Your task to perform on an android device: turn off javascript in the chrome app Image 0: 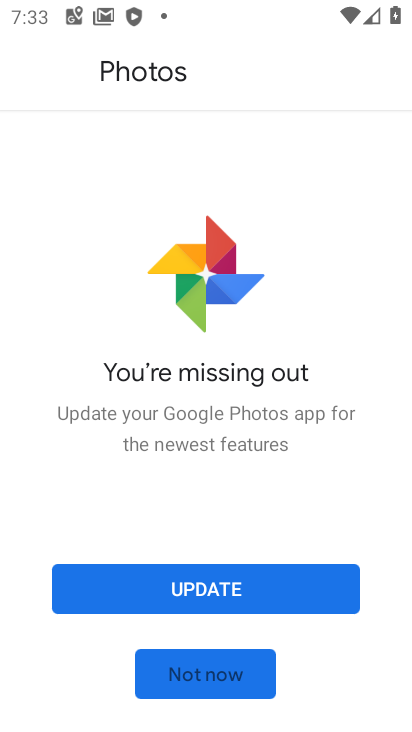
Step 0: press home button
Your task to perform on an android device: turn off javascript in the chrome app Image 1: 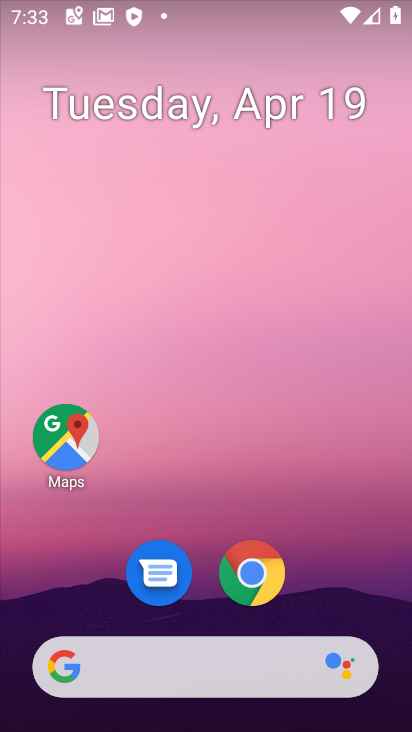
Step 1: click (252, 564)
Your task to perform on an android device: turn off javascript in the chrome app Image 2: 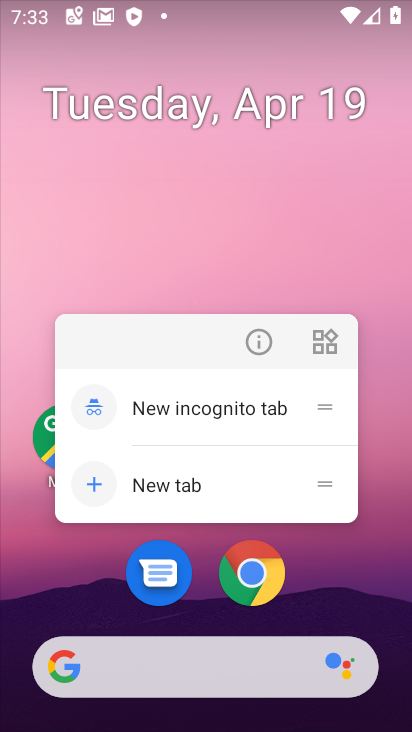
Step 2: click (252, 564)
Your task to perform on an android device: turn off javascript in the chrome app Image 3: 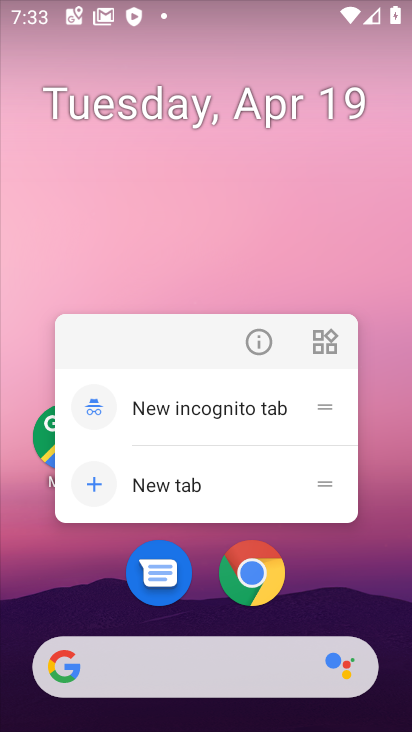
Step 3: click (252, 564)
Your task to perform on an android device: turn off javascript in the chrome app Image 4: 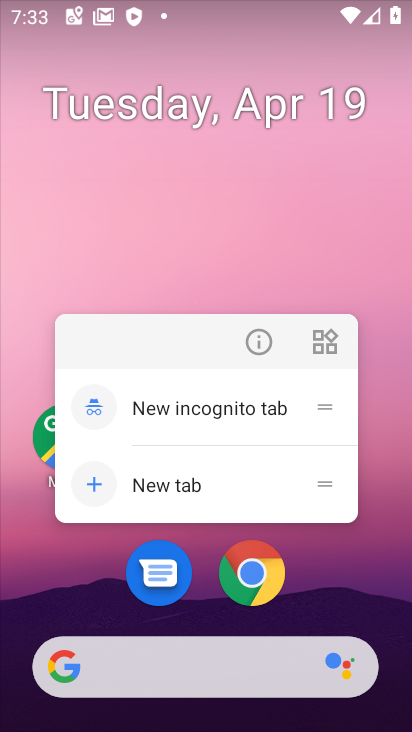
Step 4: click (252, 564)
Your task to perform on an android device: turn off javascript in the chrome app Image 5: 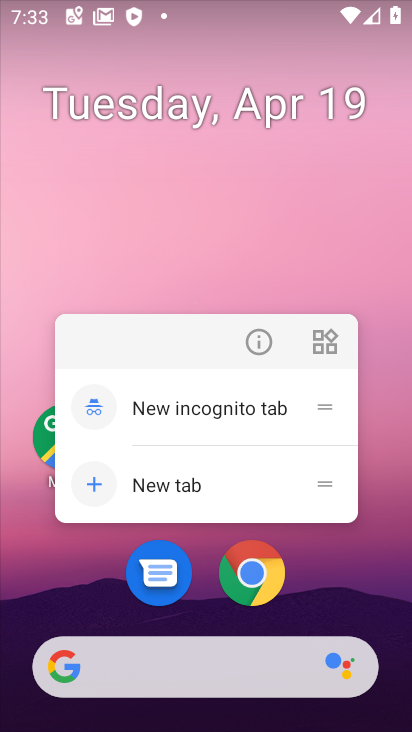
Step 5: click (252, 564)
Your task to perform on an android device: turn off javascript in the chrome app Image 6: 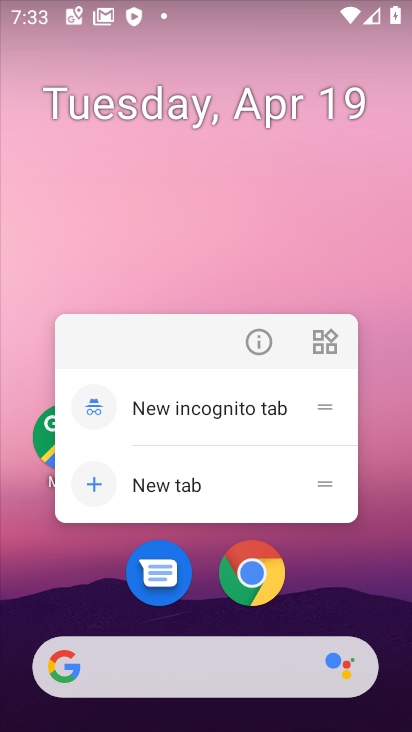
Step 6: click (252, 564)
Your task to perform on an android device: turn off javascript in the chrome app Image 7: 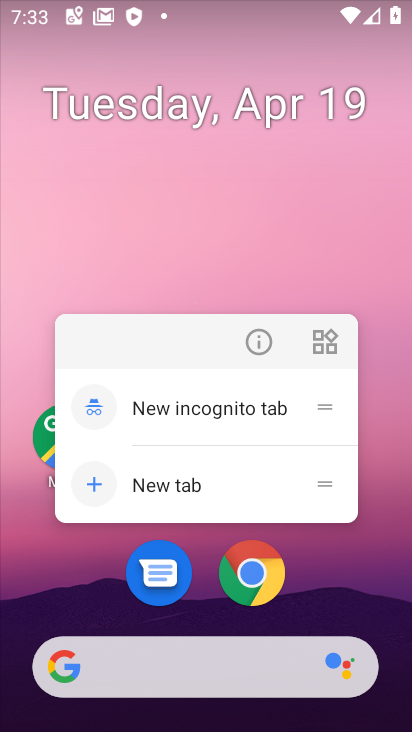
Step 7: click (251, 561)
Your task to perform on an android device: turn off javascript in the chrome app Image 8: 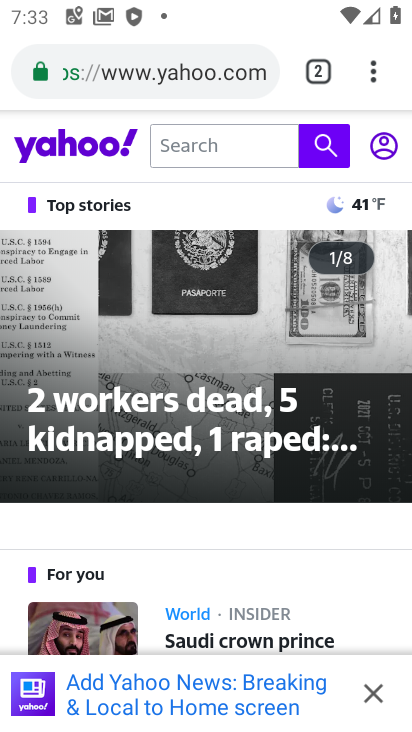
Step 8: click (371, 70)
Your task to perform on an android device: turn off javascript in the chrome app Image 9: 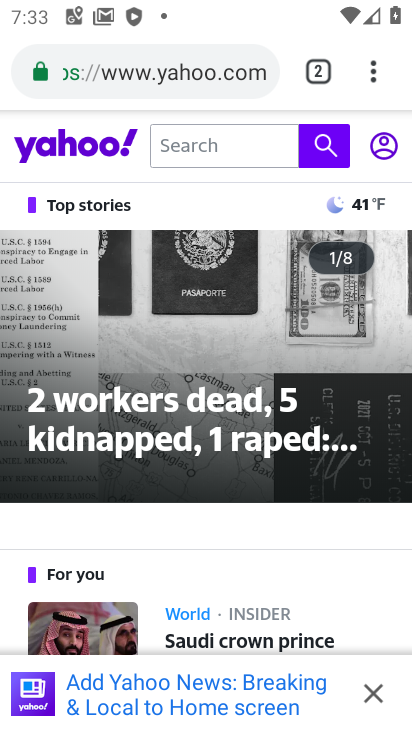
Step 9: click (371, 70)
Your task to perform on an android device: turn off javascript in the chrome app Image 10: 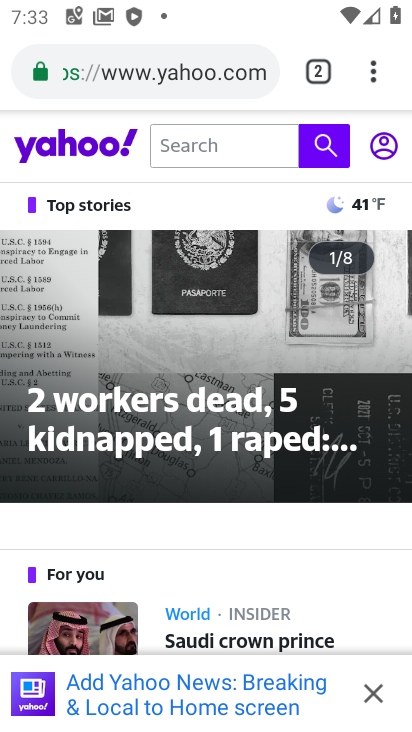
Step 10: click (371, 70)
Your task to perform on an android device: turn off javascript in the chrome app Image 11: 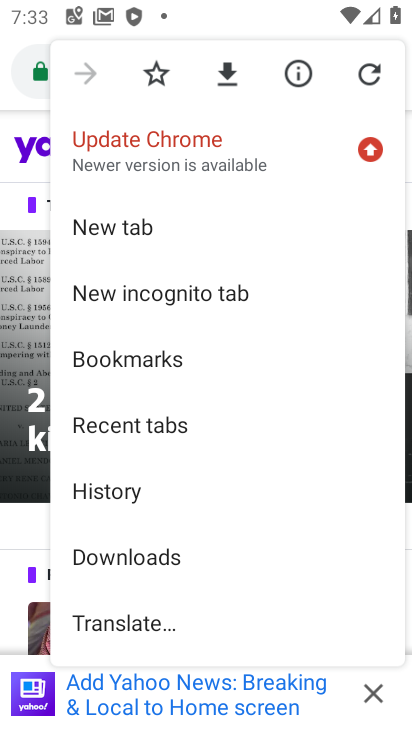
Step 11: drag from (263, 480) to (264, 272)
Your task to perform on an android device: turn off javascript in the chrome app Image 12: 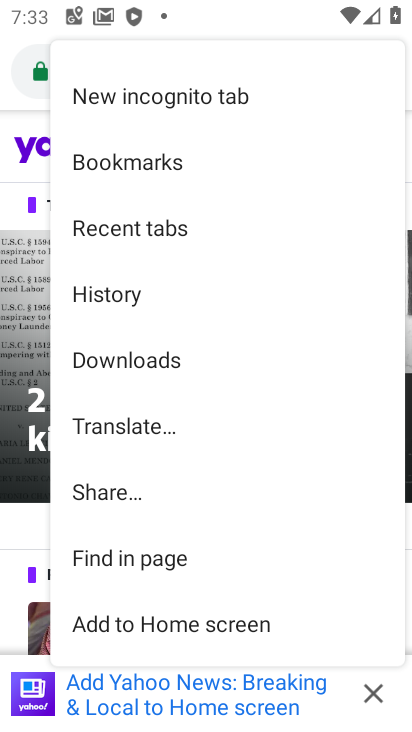
Step 12: drag from (318, 637) to (306, 252)
Your task to perform on an android device: turn off javascript in the chrome app Image 13: 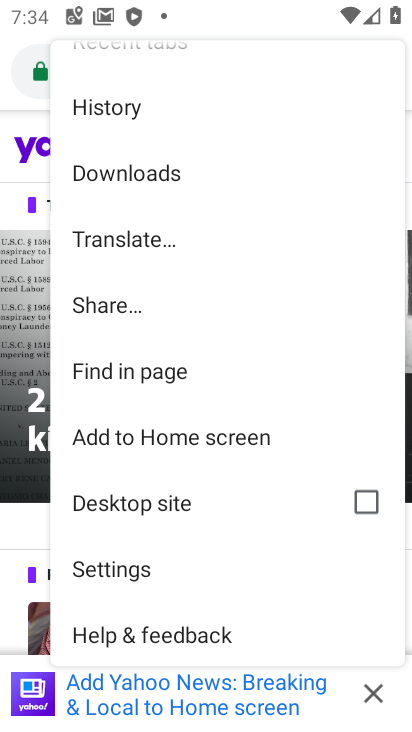
Step 13: click (131, 568)
Your task to perform on an android device: turn off javascript in the chrome app Image 14: 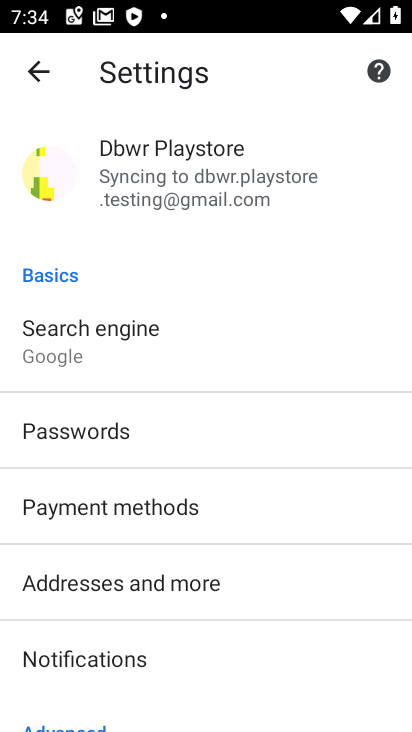
Step 14: drag from (292, 411) to (297, 214)
Your task to perform on an android device: turn off javascript in the chrome app Image 15: 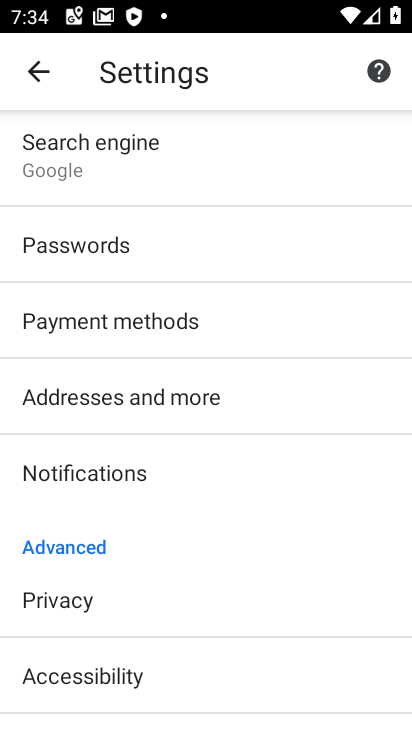
Step 15: drag from (311, 501) to (295, 183)
Your task to perform on an android device: turn off javascript in the chrome app Image 16: 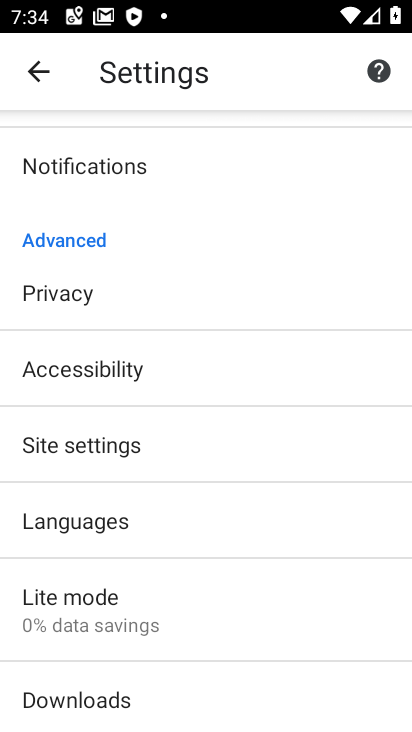
Step 16: drag from (288, 614) to (303, 187)
Your task to perform on an android device: turn off javascript in the chrome app Image 17: 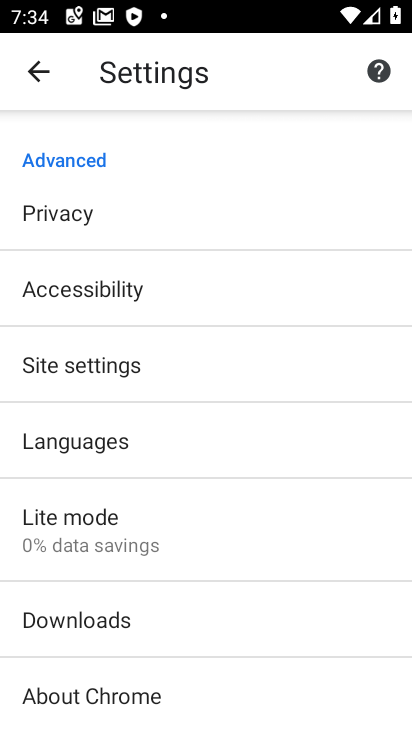
Step 17: click (79, 360)
Your task to perform on an android device: turn off javascript in the chrome app Image 18: 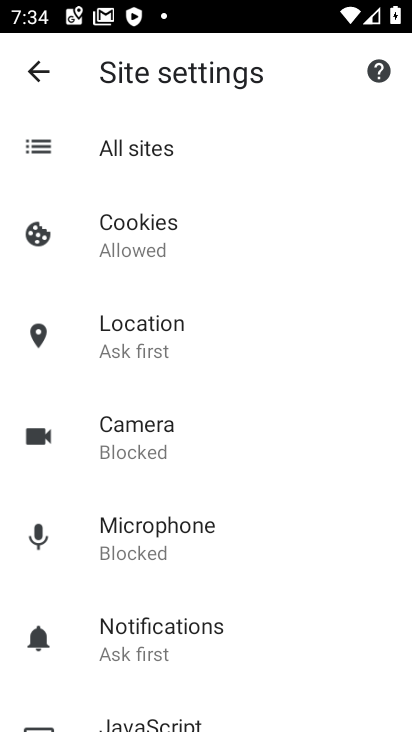
Step 18: drag from (294, 658) to (310, 264)
Your task to perform on an android device: turn off javascript in the chrome app Image 19: 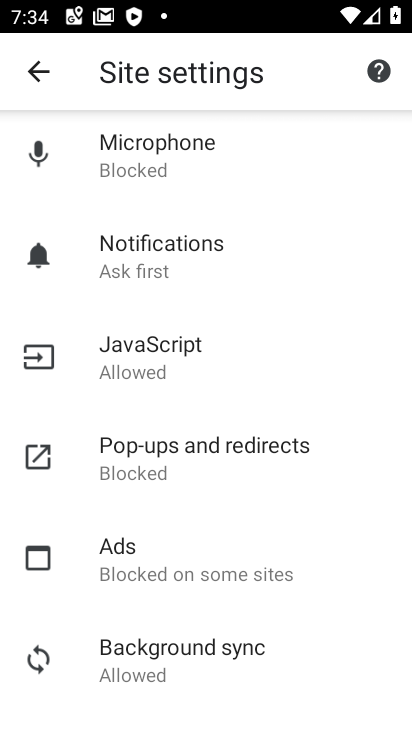
Step 19: click (155, 348)
Your task to perform on an android device: turn off javascript in the chrome app Image 20: 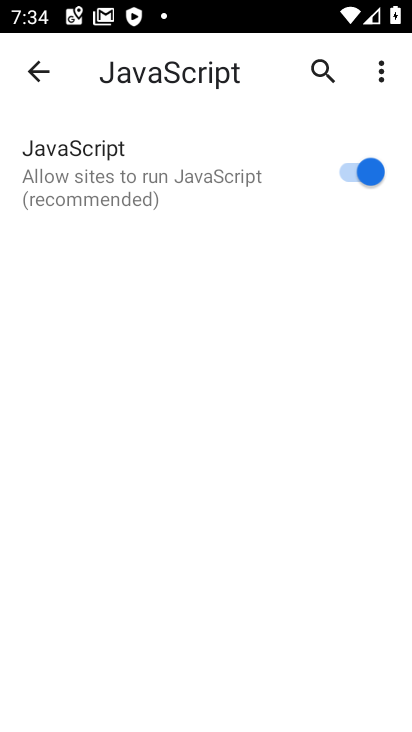
Step 20: click (347, 170)
Your task to perform on an android device: turn off javascript in the chrome app Image 21: 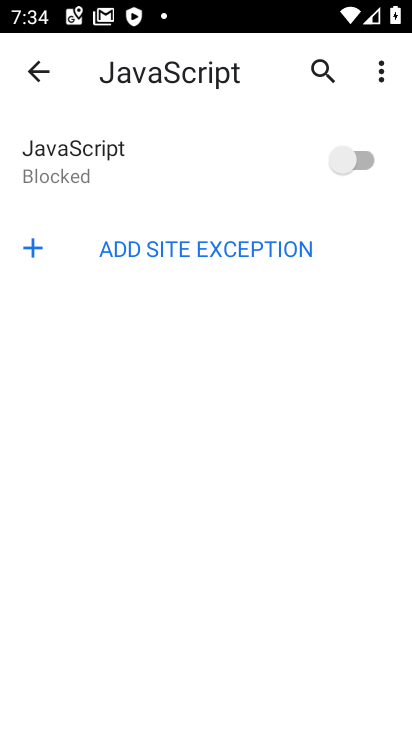
Step 21: task complete